Your task to perform on an android device: open app "Pluto TV - Live TV and Movies" Image 0: 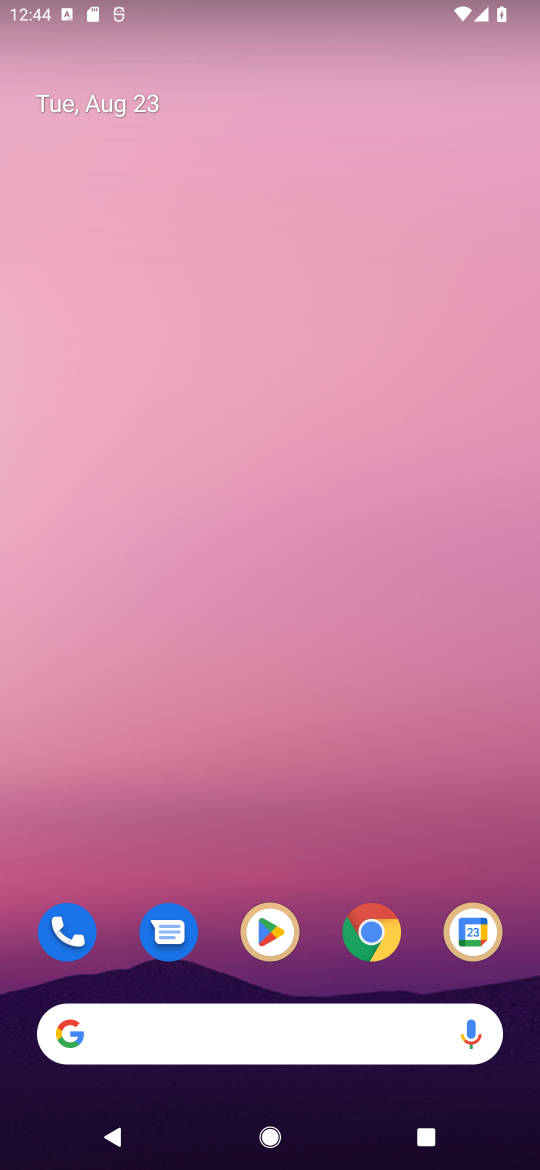
Step 0: click (256, 943)
Your task to perform on an android device: open app "Pluto TV - Live TV and Movies" Image 1: 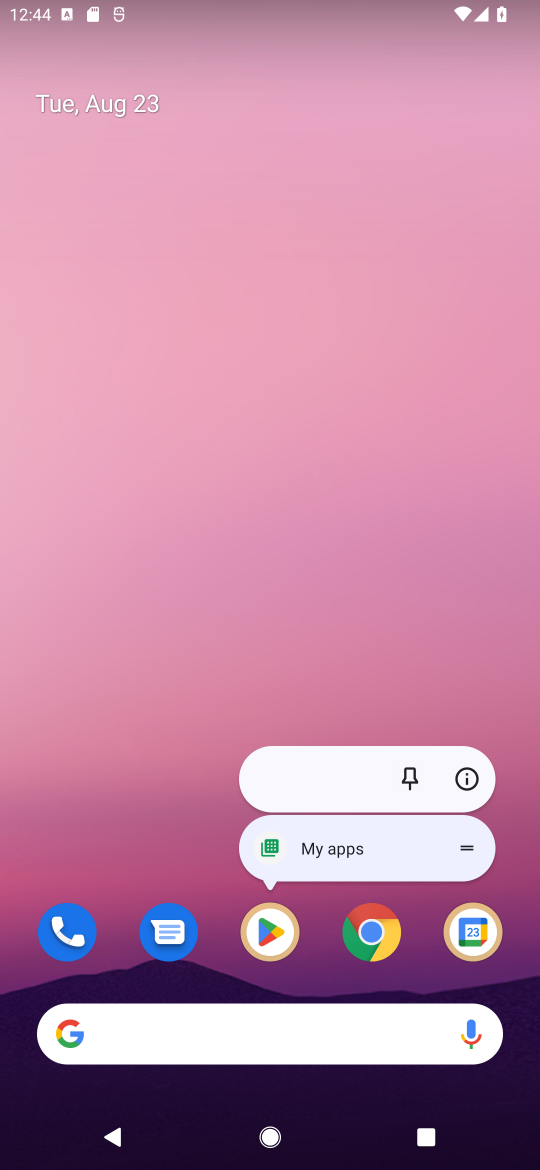
Step 1: click (263, 925)
Your task to perform on an android device: open app "Pluto TV - Live TV and Movies" Image 2: 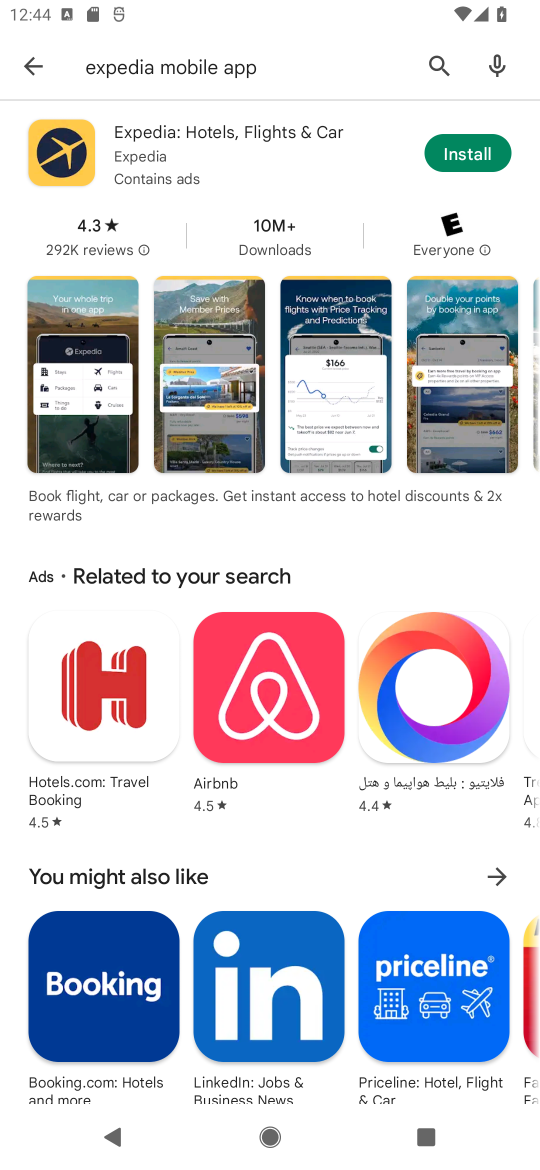
Step 2: click (435, 55)
Your task to perform on an android device: open app "Pluto TV - Live TV and Movies" Image 3: 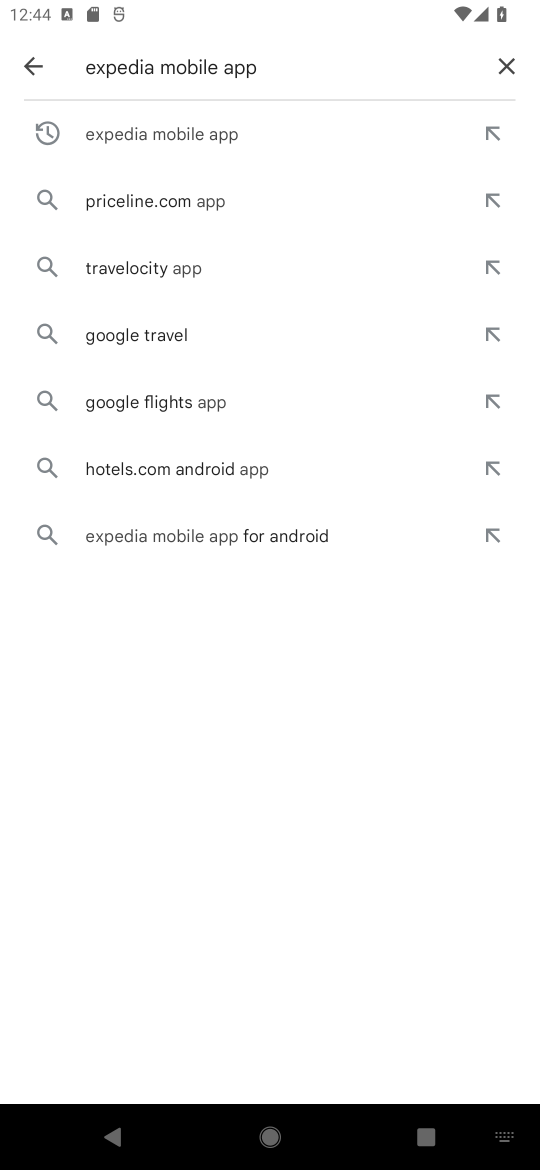
Step 3: click (510, 62)
Your task to perform on an android device: open app "Pluto TV - Live TV and Movies" Image 4: 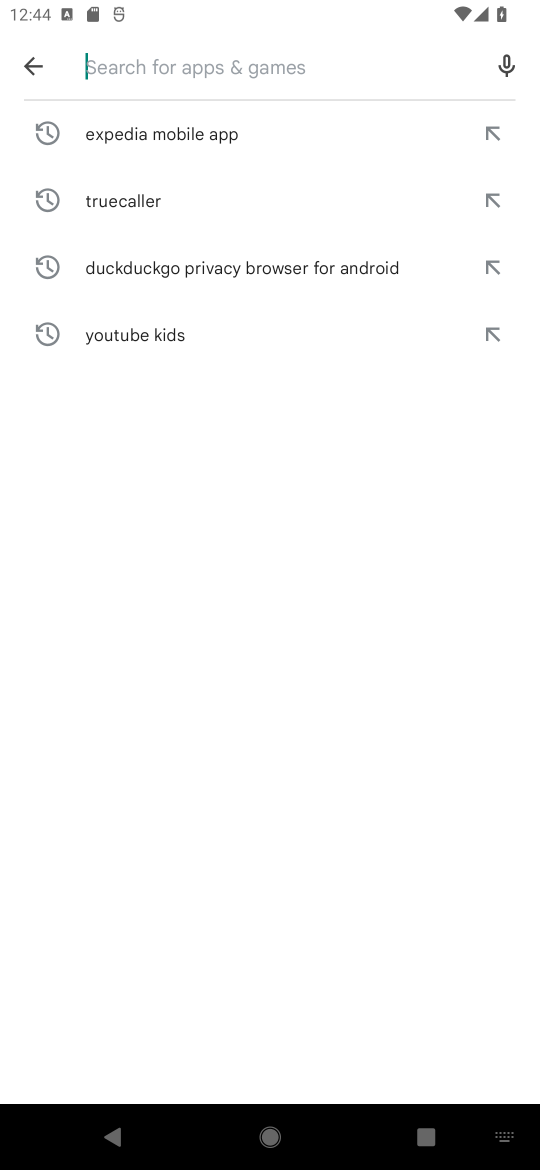
Step 4: click (186, 78)
Your task to perform on an android device: open app "Pluto TV - Live TV and Movies" Image 5: 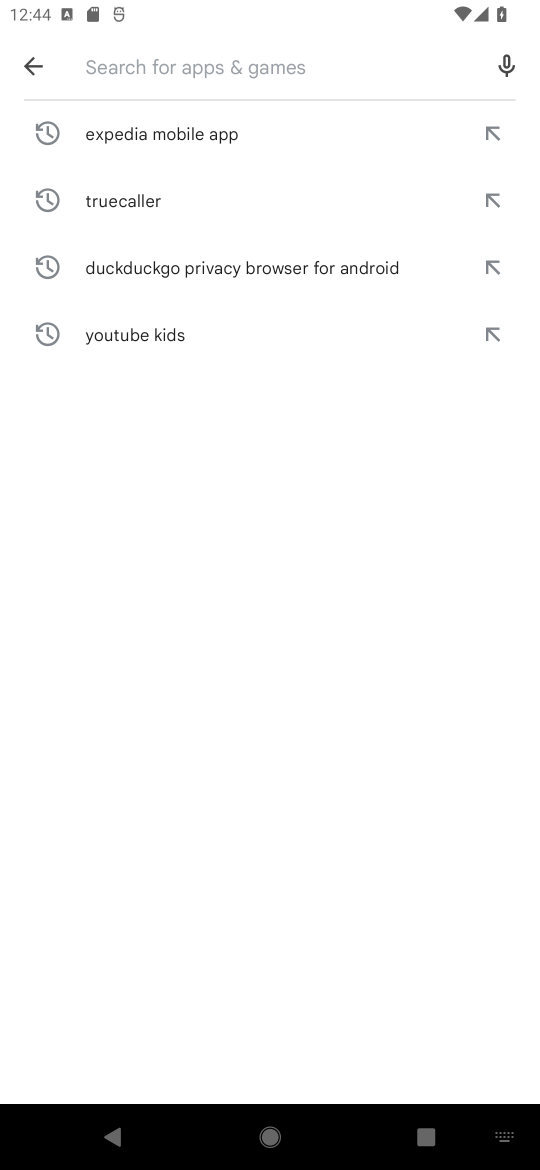
Step 5: type "Pluto TV"
Your task to perform on an android device: open app "Pluto TV - Live TV and Movies" Image 6: 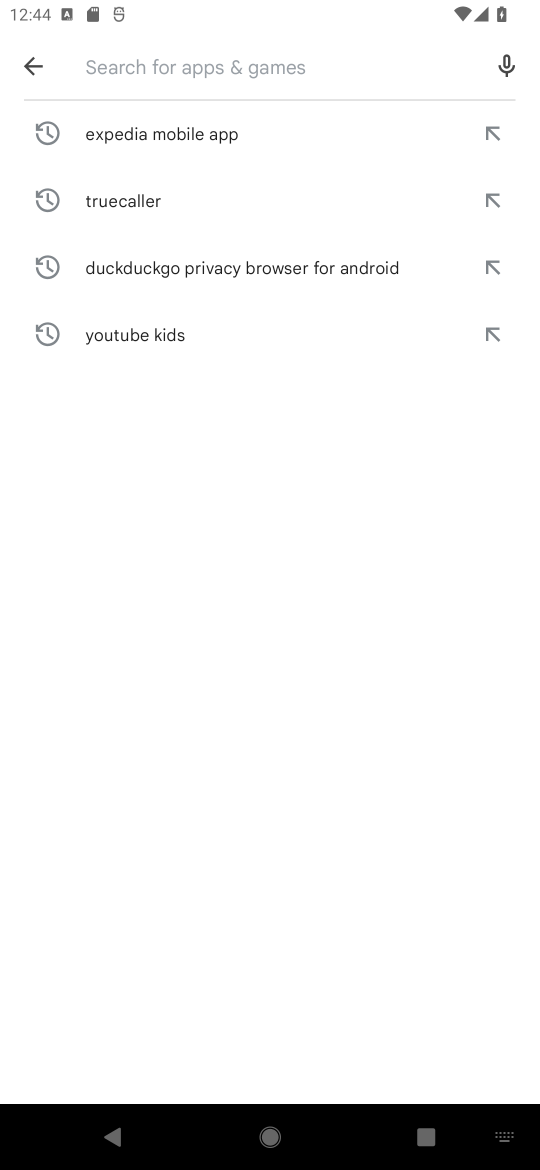
Step 6: click (343, 737)
Your task to perform on an android device: open app "Pluto TV - Live TV and Movies" Image 7: 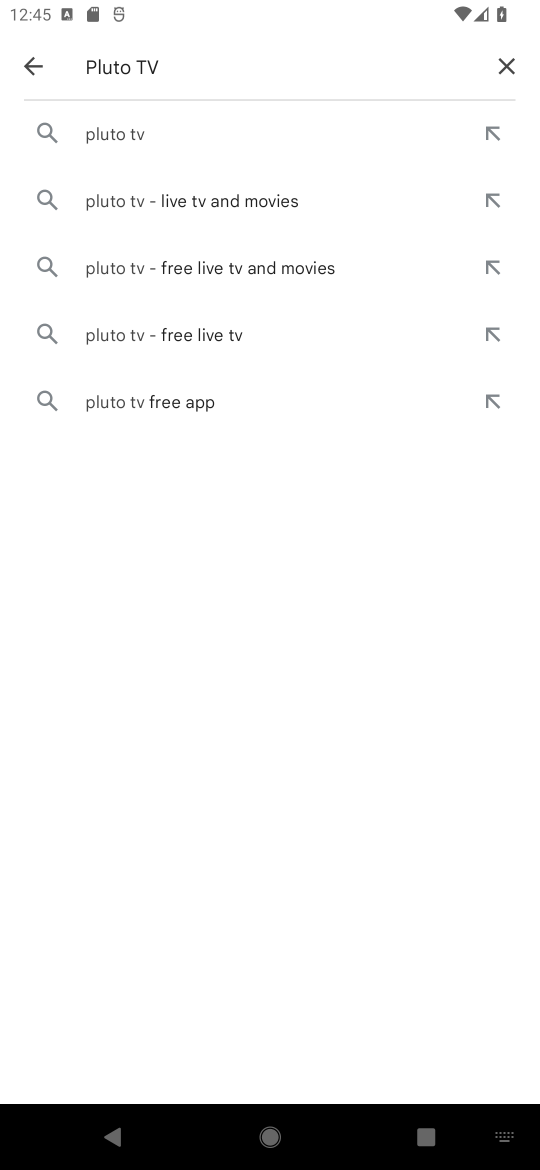
Step 7: click (128, 123)
Your task to perform on an android device: open app "Pluto TV - Live TV and Movies" Image 8: 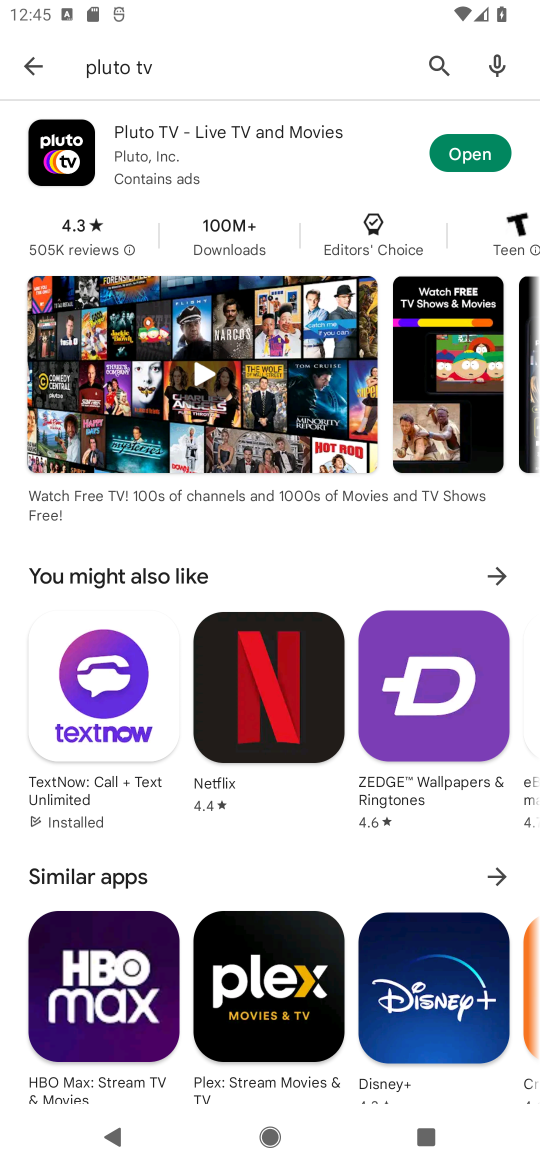
Step 8: click (456, 150)
Your task to perform on an android device: open app "Pluto TV - Live TV and Movies" Image 9: 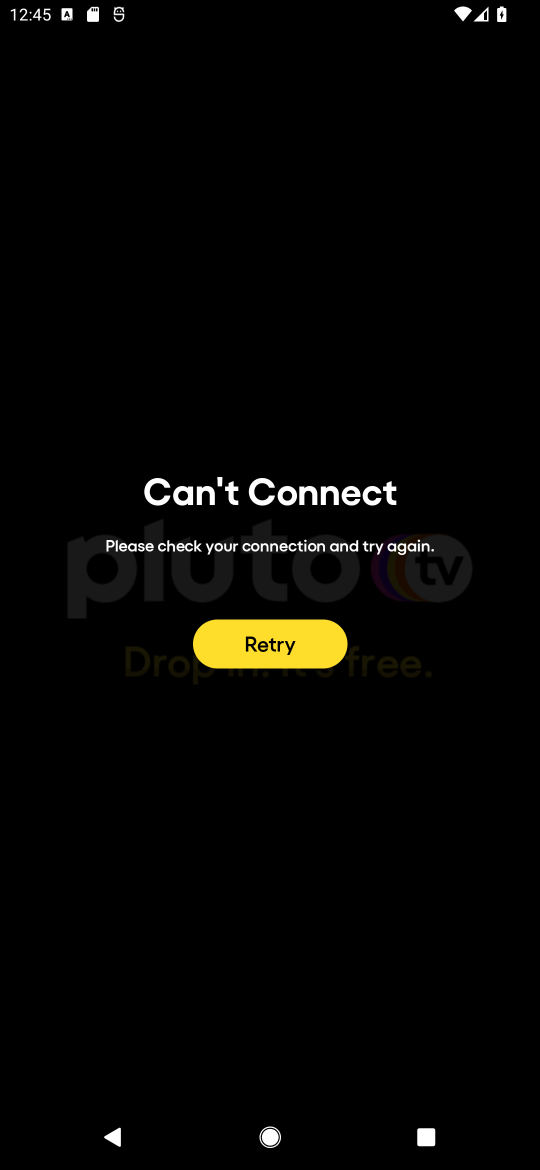
Step 9: task complete